Your task to perform on an android device: Open settings Image 0: 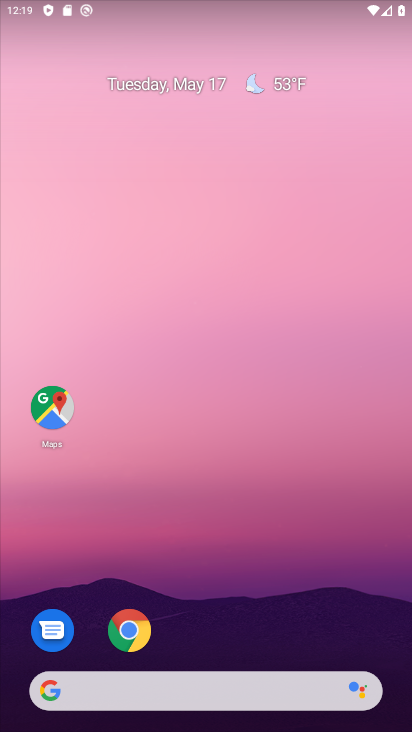
Step 0: drag from (199, 636) to (242, 281)
Your task to perform on an android device: Open settings Image 1: 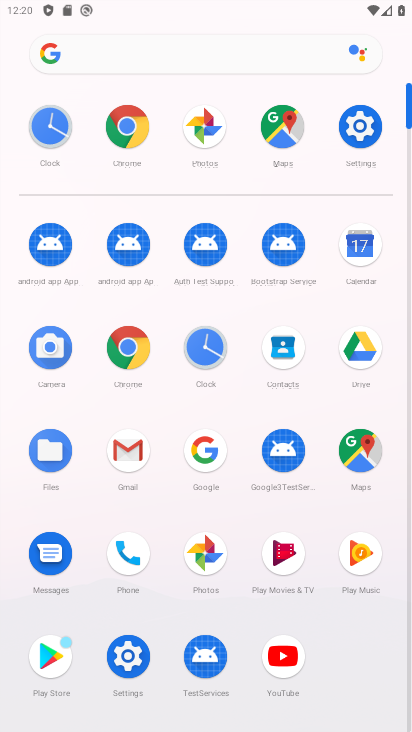
Step 1: click (134, 656)
Your task to perform on an android device: Open settings Image 2: 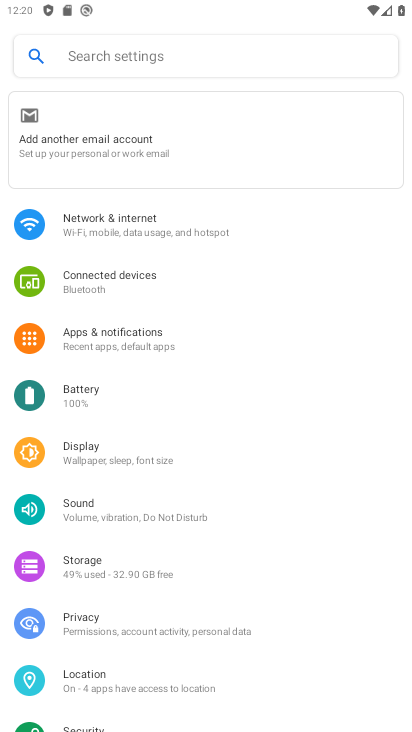
Step 2: task complete